Your task to perform on an android device: Open notification settings Image 0: 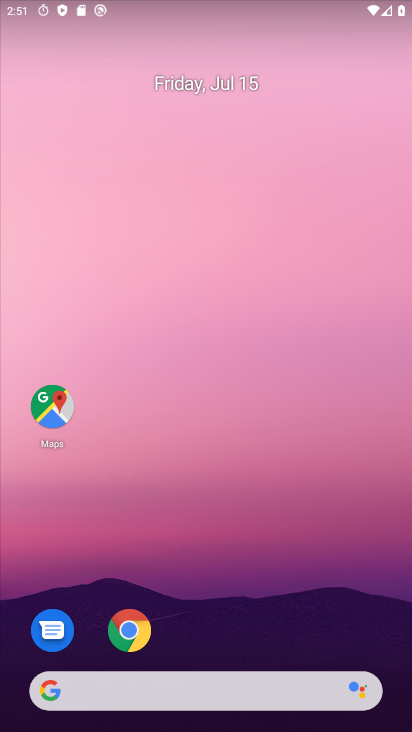
Step 0: drag from (237, 605) to (207, 188)
Your task to perform on an android device: Open notification settings Image 1: 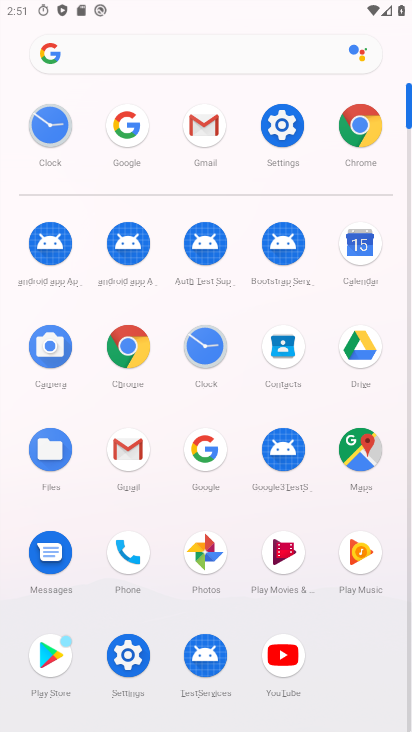
Step 1: click (286, 124)
Your task to perform on an android device: Open notification settings Image 2: 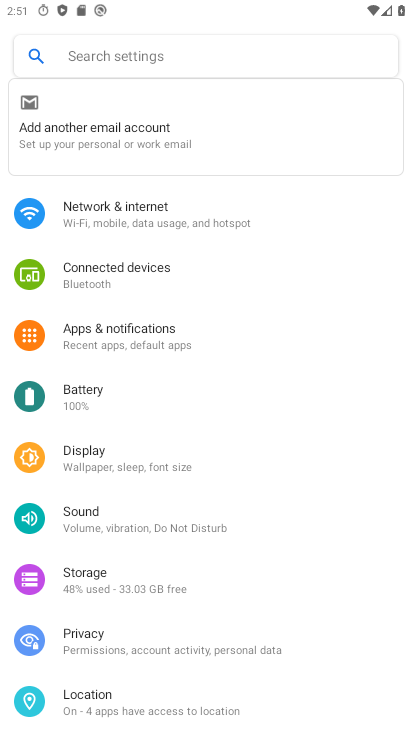
Step 2: click (140, 334)
Your task to perform on an android device: Open notification settings Image 3: 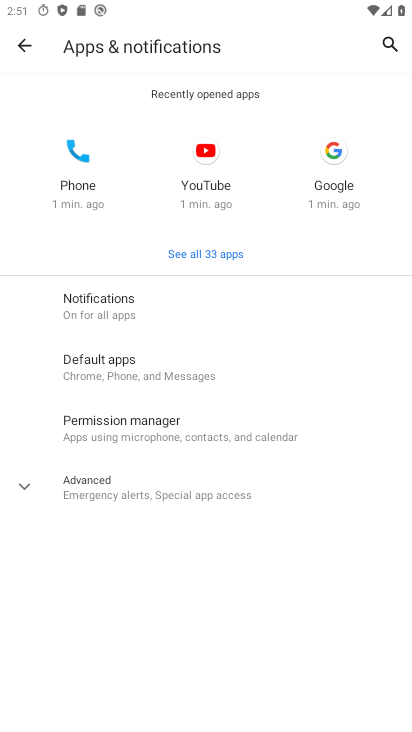
Step 3: click (120, 297)
Your task to perform on an android device: Open notification settings Image 4: 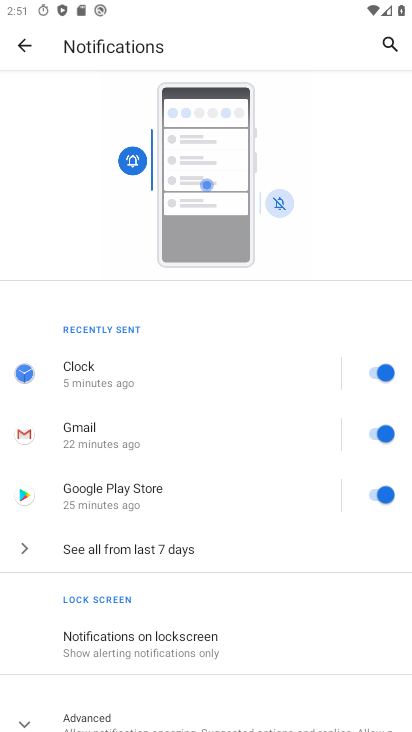
Step 4: task complete